Your task to perform on an android device: change timer sound Image 0: 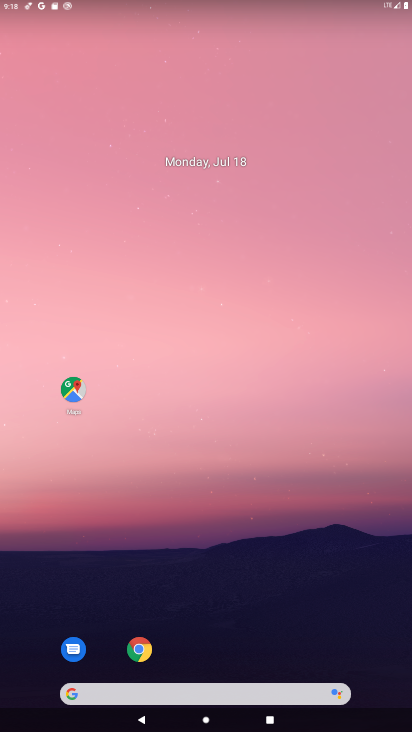
Step 0: drag from (221, 689) to (233, 130)
Your task to perform on an android device: change timer sound Image 1: 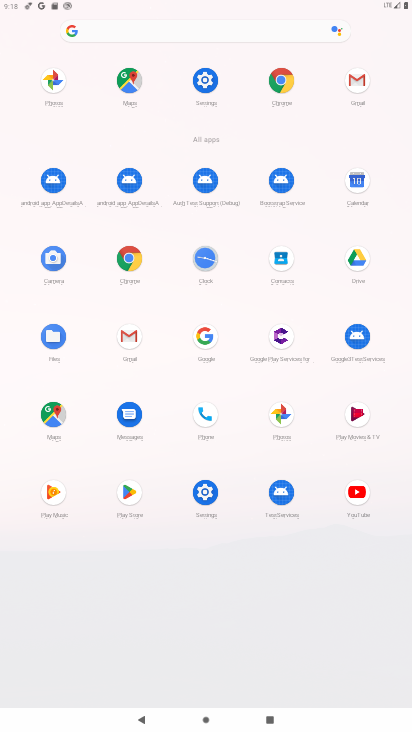
Step 1: click (206, 260)
Your task to perform on an android device: change timer sound Image 2: 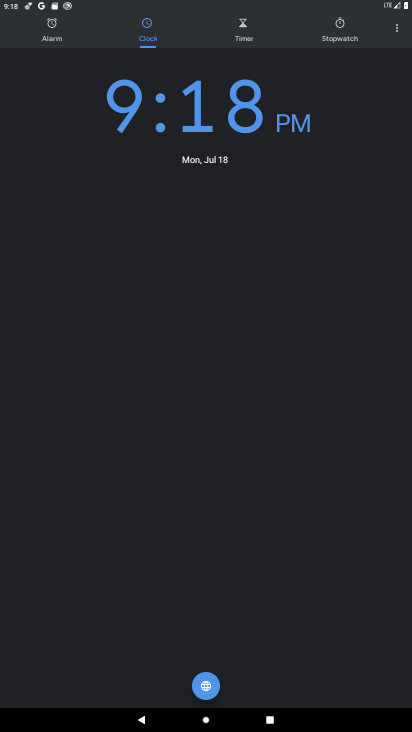
Step 2: click (401, 32)
Your task to perform on an android device: change timer sound Image 3: 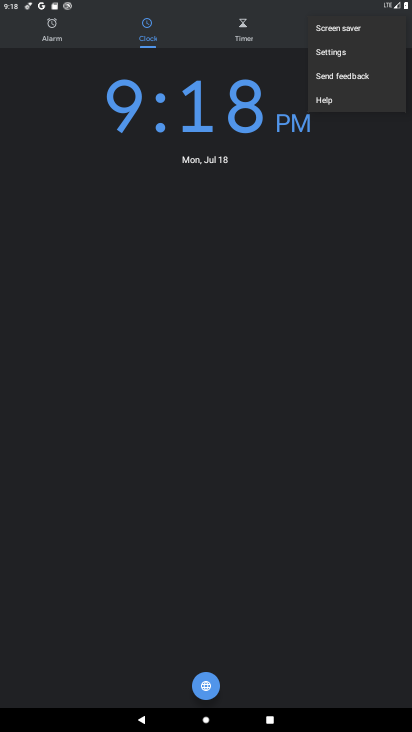
Step 3: click (338, 51)
Your task to perform on an android device: change timer sound Image 4: 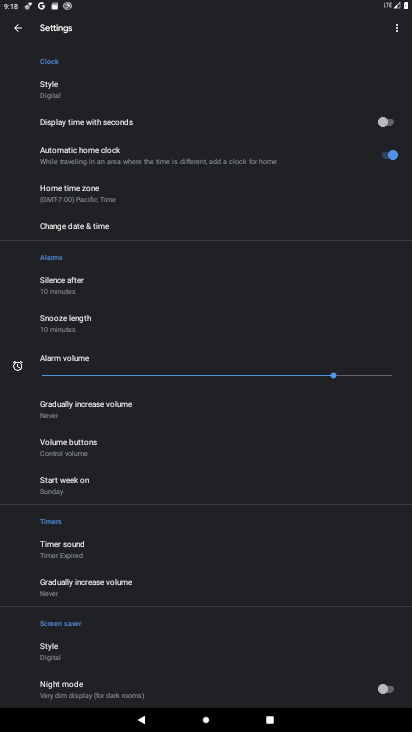
Step 4: click (72, 548)
Your task to perform on an android device: change timer sound Image 5: 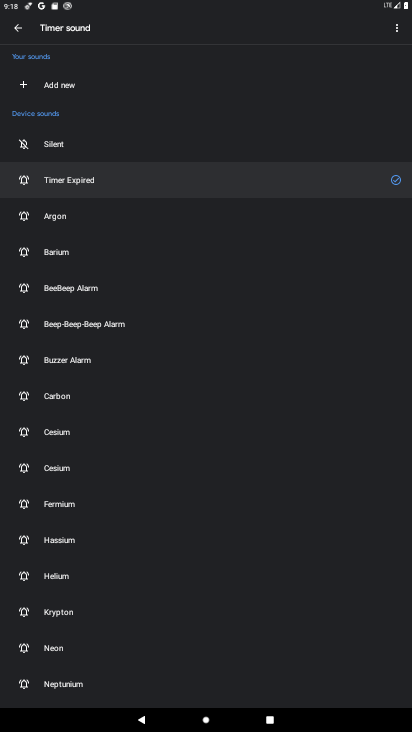
Step 5: click (75, 219)
Your task to perform on an android device: change timer sound Image 6: 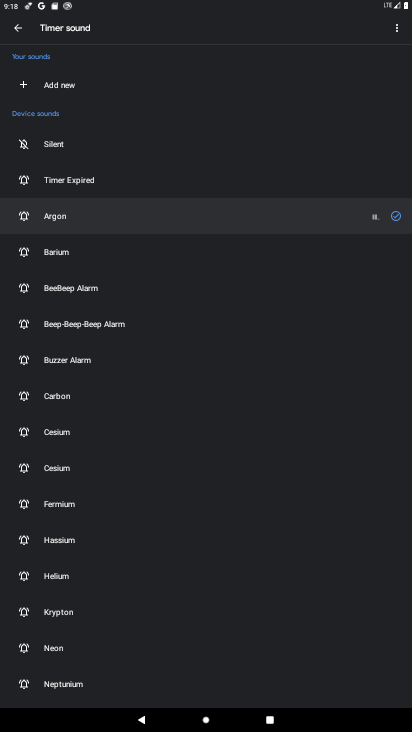
Step 6: task complete